Your task to perform on an android device: Search for Italian restaurants on Maps Image 0: 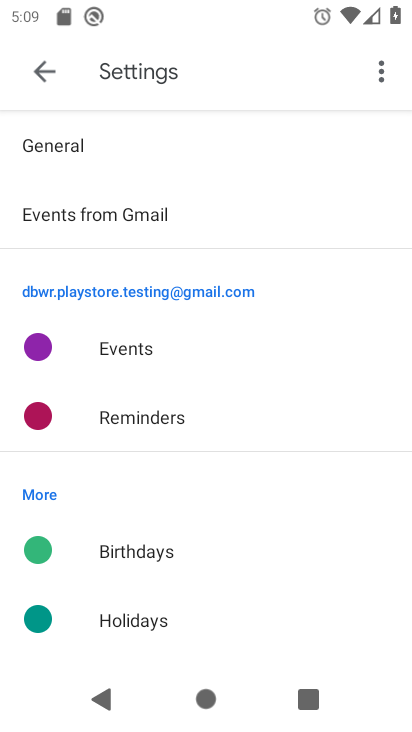
Step 0: press home button
Your task to perform on an android device: Search for Italian restaurants on Maps Image 1: 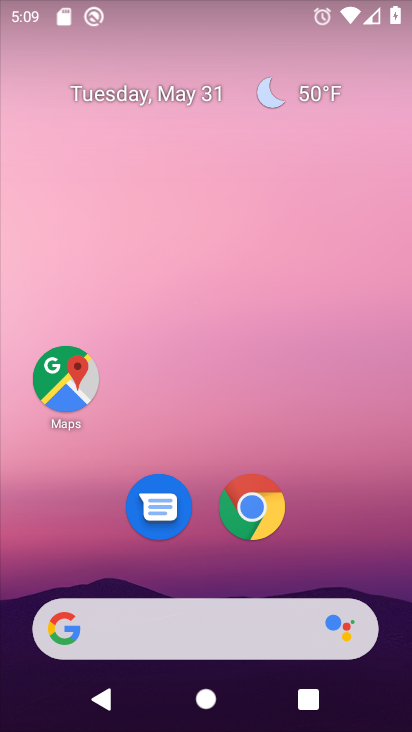
Step 1: click (76, 378)
Your task to perform on an android device: Search for Italian restaurants on Maps Image 2: 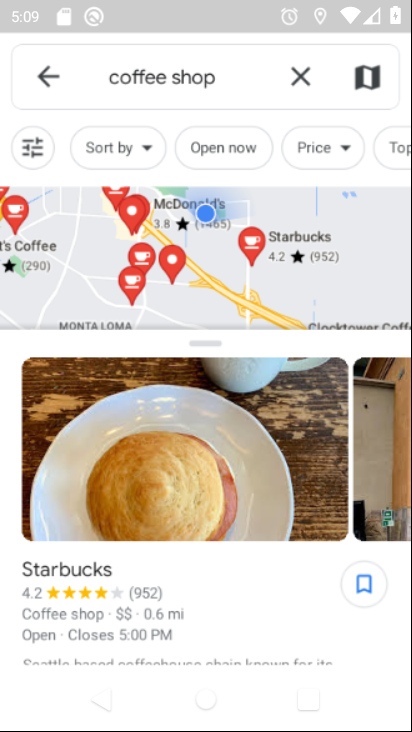
Step 2: click (297, 69)
Your task to perform on an android device: Search for Italian restaurants on Maps Image 3: 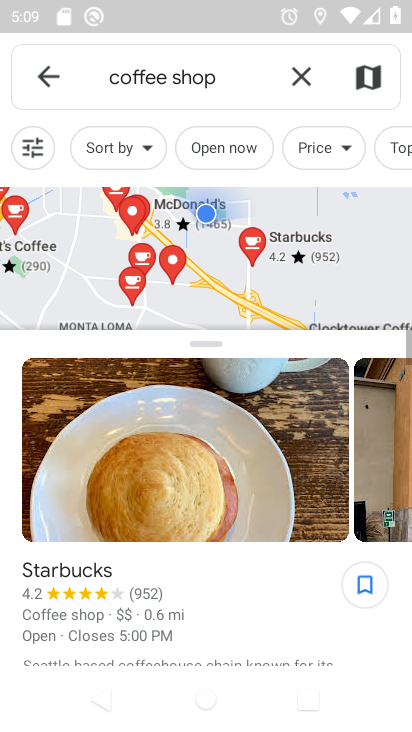
Step 3: click (304, 74)
Your task to perform on an android device: Search for Italian restaurants on Maps Image 4: 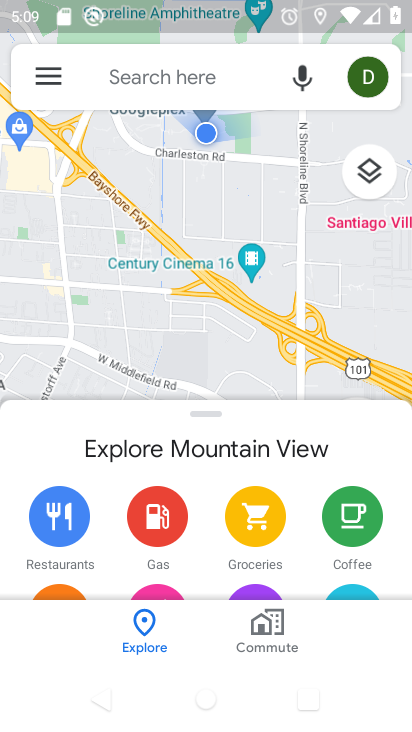
Step 4: click (183, 73)
Your task to perform on an android device: Search for Italian restaurants on Maps Image 5: 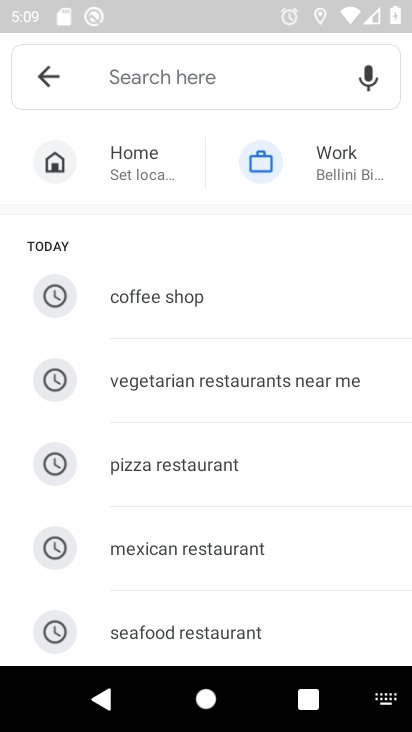
Step 5: drag from (248, 542) to (290, 303)
Your task to perform on an android device: Search for Italian restaurants on Maps Image 6: 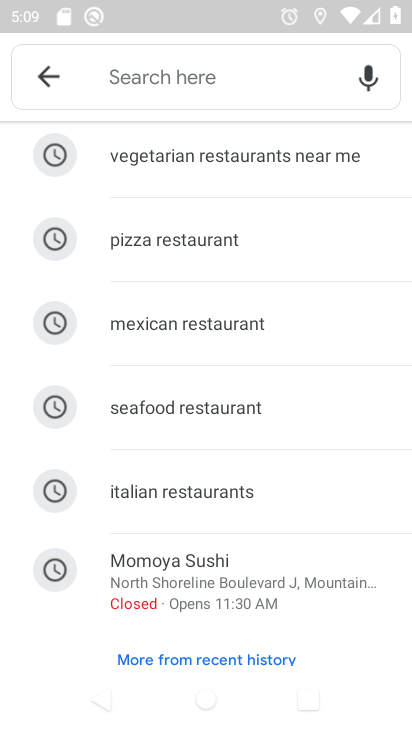
Step 6: click (238, 481)
Your task to perform on an android device: Search for Italian restaurants on Maps Image 7: 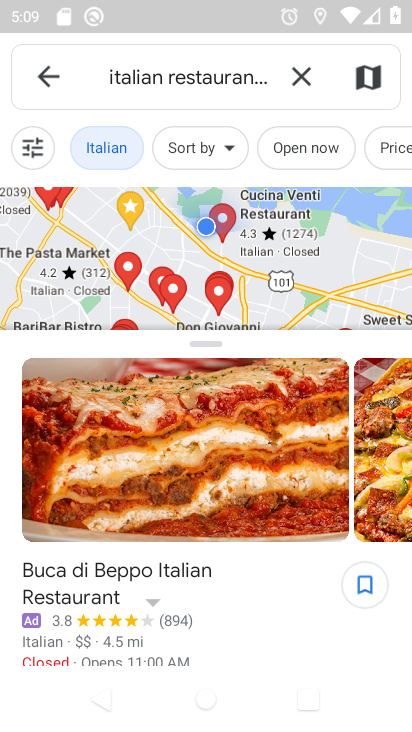
Step 7: task complete